Your task to perform on an android device: uninstall "Reddit" Image 0: 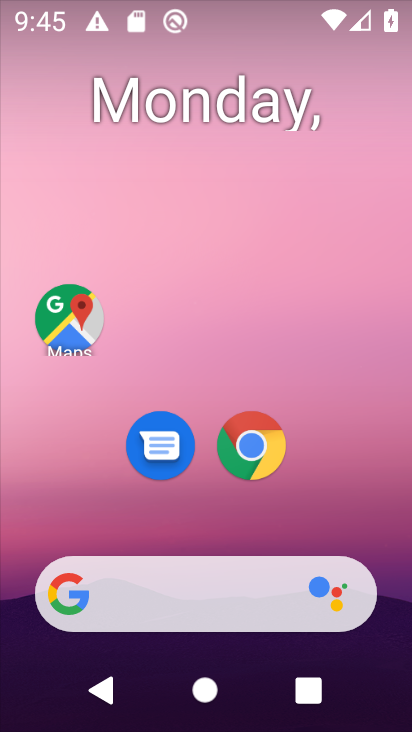
Step 0: drag from (383, 613) to (256, 93)
Your task to perform on an android device: uninstall "Reddit" Image 1: 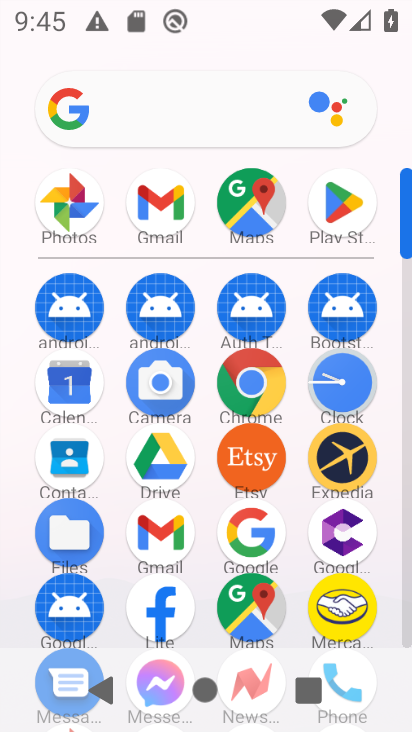
Step 1: click (327, 214)
Your task to perform on an android device: uninstall "Reddit" Image 2: 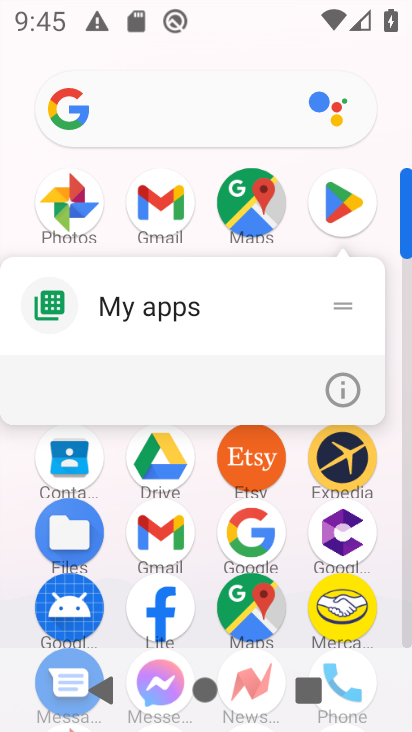
Step 2: click (327, 214)
Your task to perform on an android device: uninstall "Reddit" Image 3: 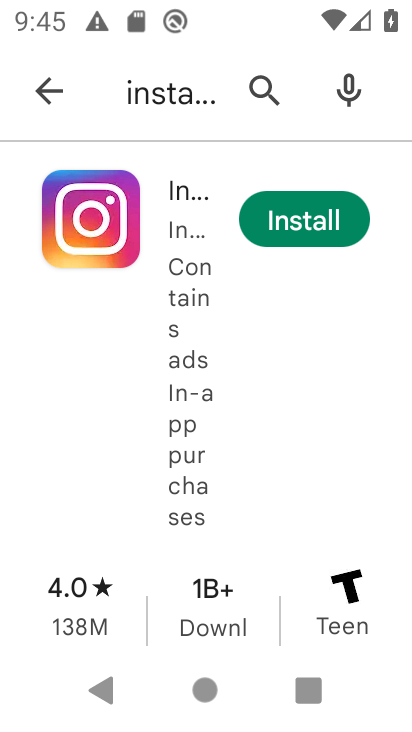
Step 3: press back button
Your task to perform on an android device: uninstall "Reddit" Image 4: 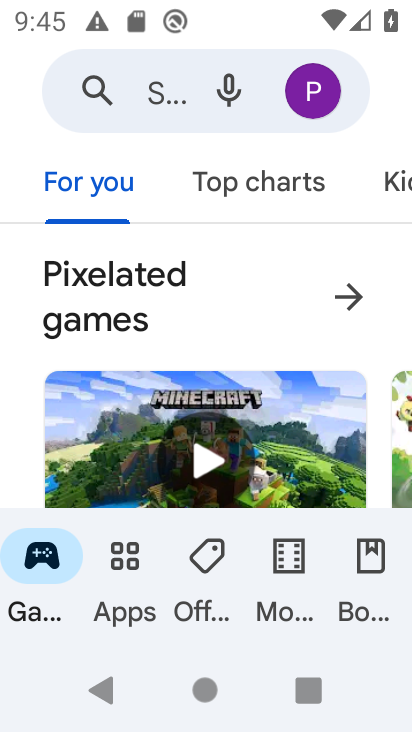
Step 4: click (130, 96)
Your task to perform on an android device: uninstall "Reddit" Image 5: 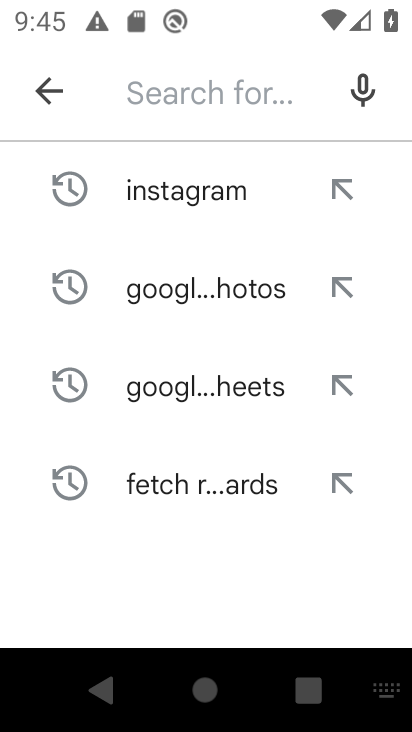
Step 5: type "Reddit"
Your task to perform on an android device: uninstall "Reddit" Image 6: 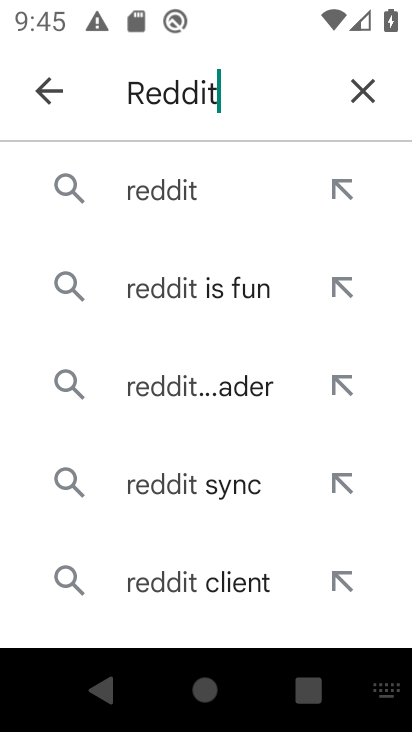
Step 6: click (182, 184)
Your task to perform on an android device: uninstall "Reddit" Image 7: 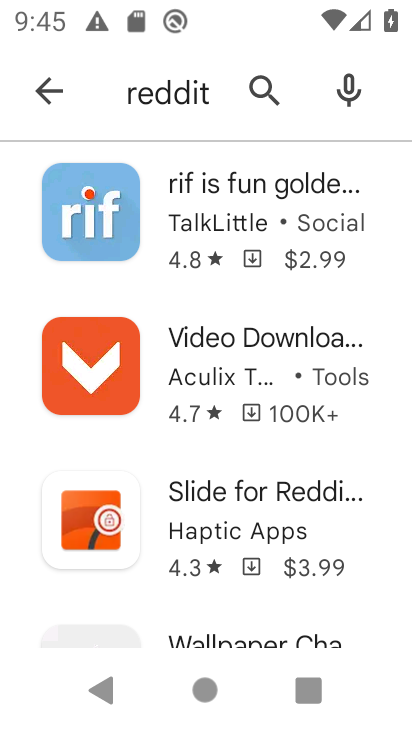
Step 7: task complete